Your task to perform on an android device: change alarm snooze length Image 0: 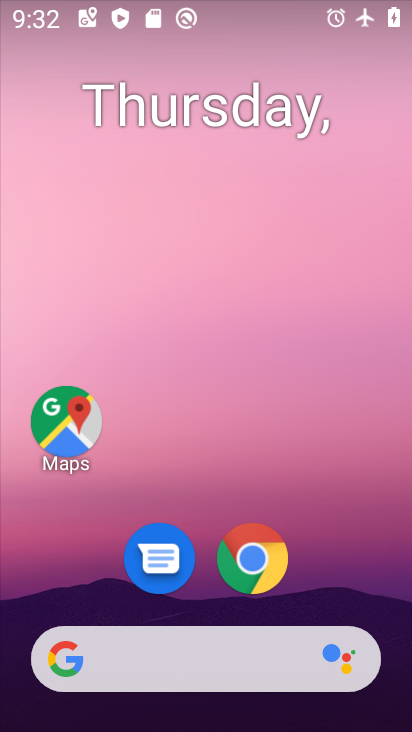
Step 0: drag from (399, 665) to (221, 125)
Your task to perform on an android device: change alarm snooze length Image 1: 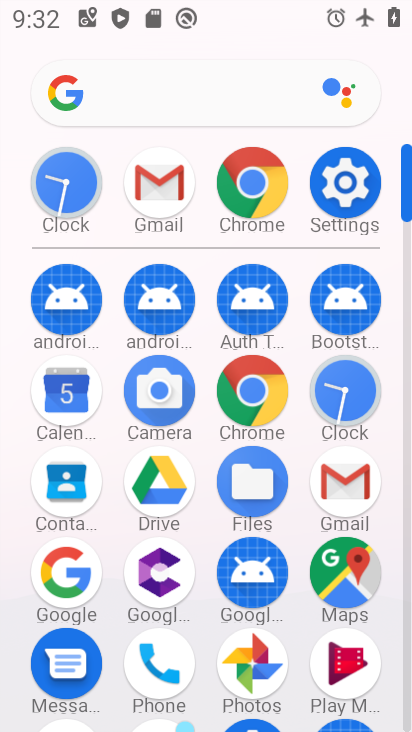
Step 1: click (408, 696)
Your task to perform on an android device: change alarm snooze length Image 2: 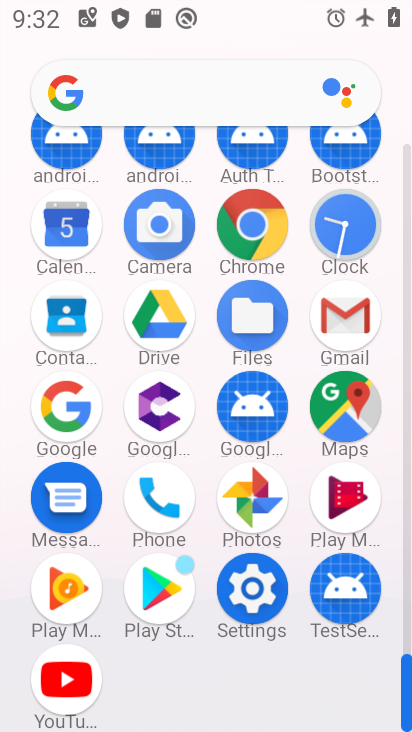
Step 2: click (345, 223)
Your task to perform on an android device: change alarm snooze length Image 3: 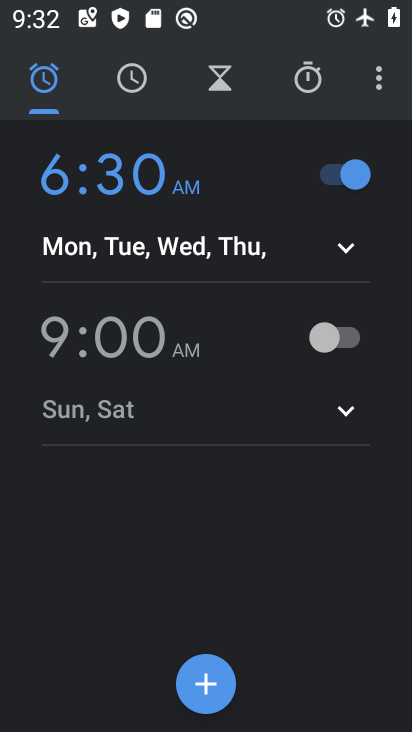
Step 3: click (373, 79)
Your task to perform on an android device: change alarm snooze length Image 4: 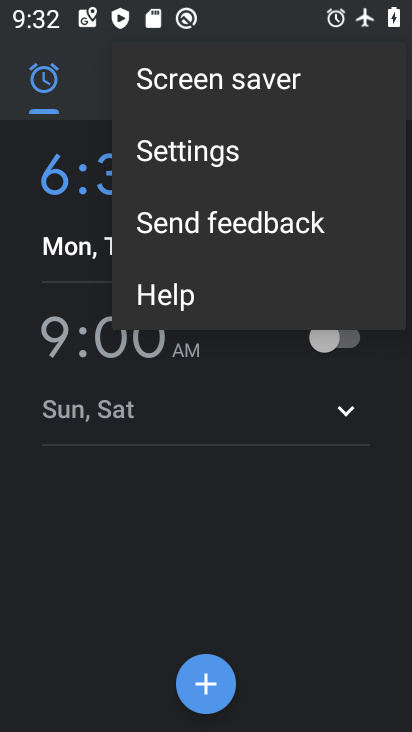
Step 4: click (197, 153)
Your task to perform on an android device: change alarm snooze length Image 5: 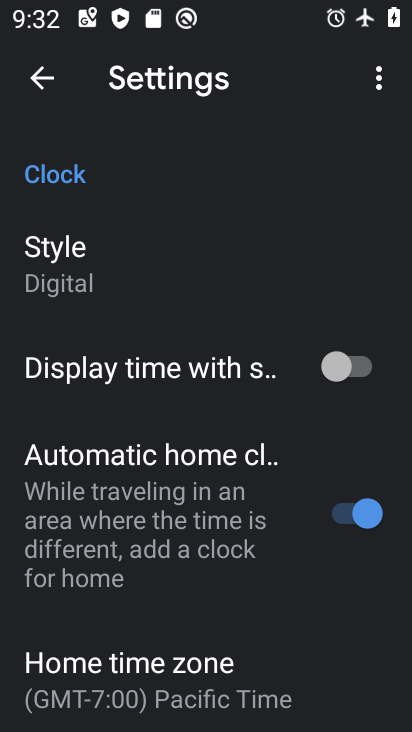
Step 5: drag from (253, 607) to (293, 131)
Your task to perform on an android device: change alarm snooze length Image 6: 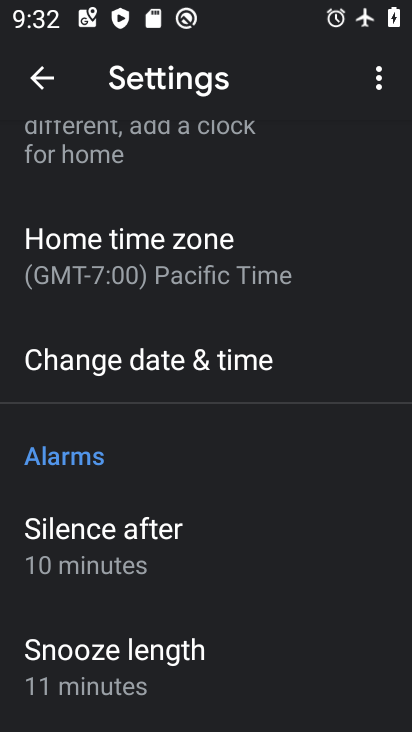
Step 6: click (88, 663)
Your task to perform on an android device: change alarm snooze length Image 7: 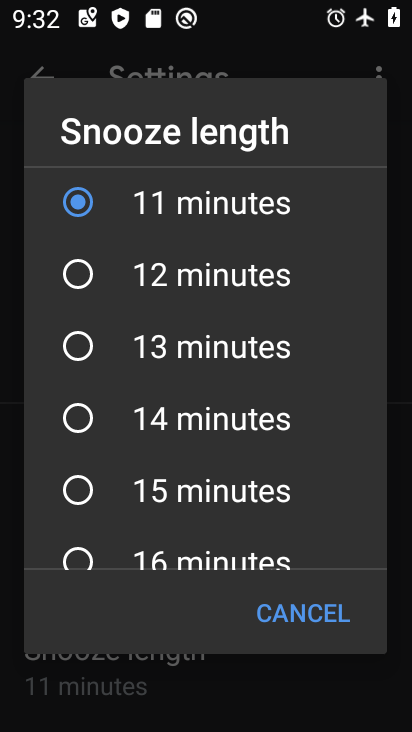
Step 7: drag from (187, 224) to (232, 560)
Your task to perform on an android device: change alarm snooze length Image 8: 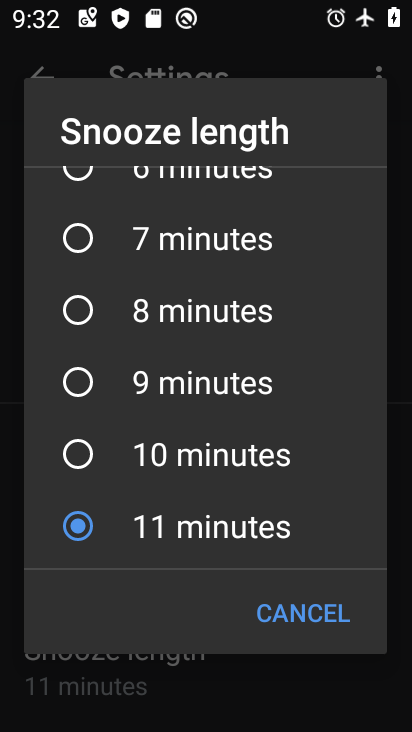
Step 8: click (81, 314)
Your task to perform on an android device: change alarm snooze length Image 9: 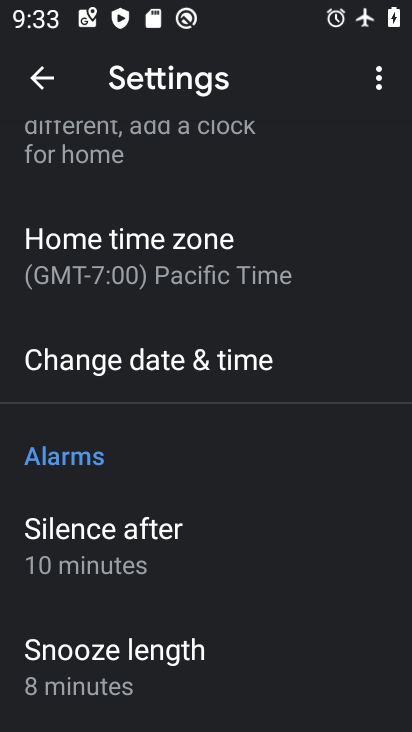
Step 9: task complete